Your task to perform on an android device: What's the weather? Image 0: 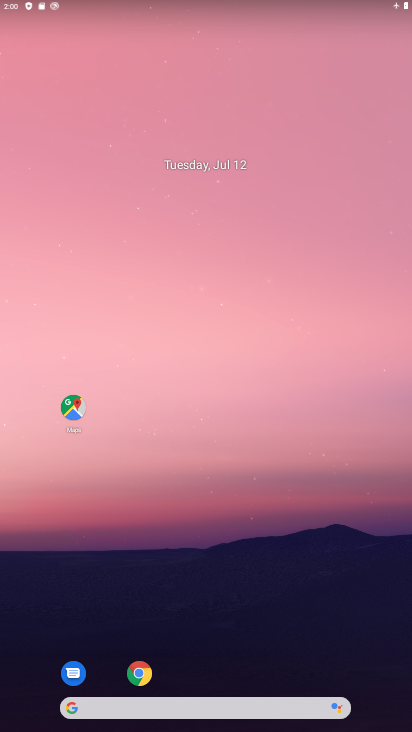
Step 0: drag from (294, 681) to (253, 348)
Your task to perform on an android device: What's the weather? Image 1: 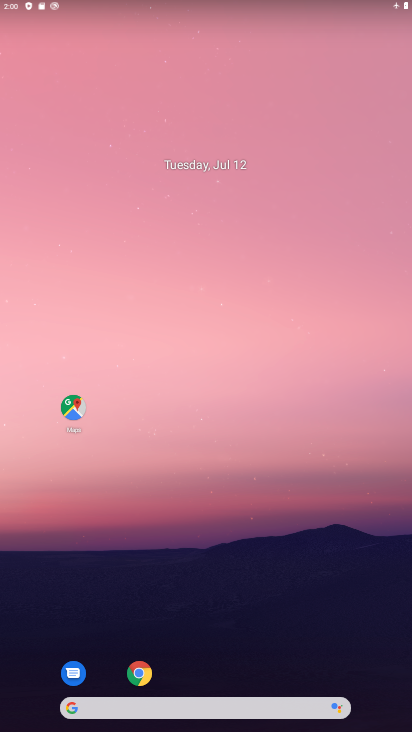
Step 1: drag from (177, 547) to (180, 96)
Your task to perform on an android device: What's the weather? Image 2: 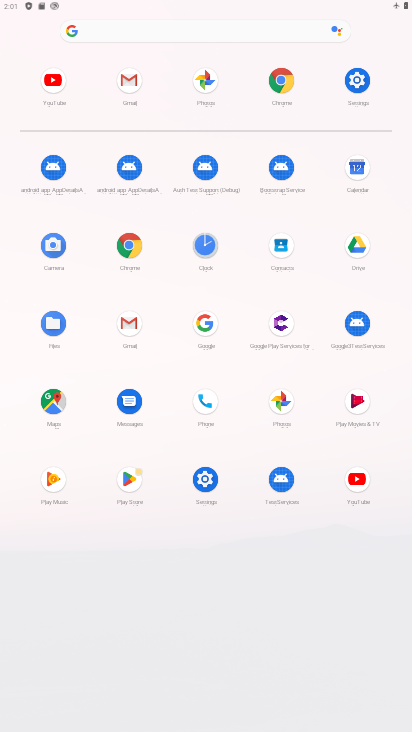
Step 2: click (273, 76)
Your task to perform on an android device: What's the weather? Image 3: 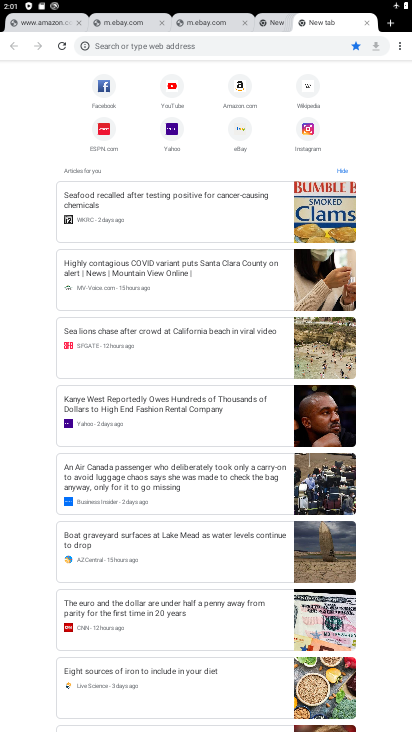
Step 3: click (186, 47)
Your task to perform on an android device: What's the weather? Image 4: 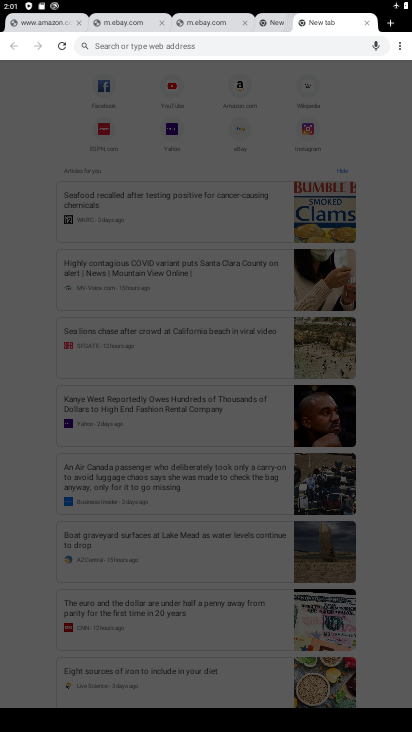
Step 4: type "What's the weather "
Your task to perform on an android device: What's the weather? Image 5: 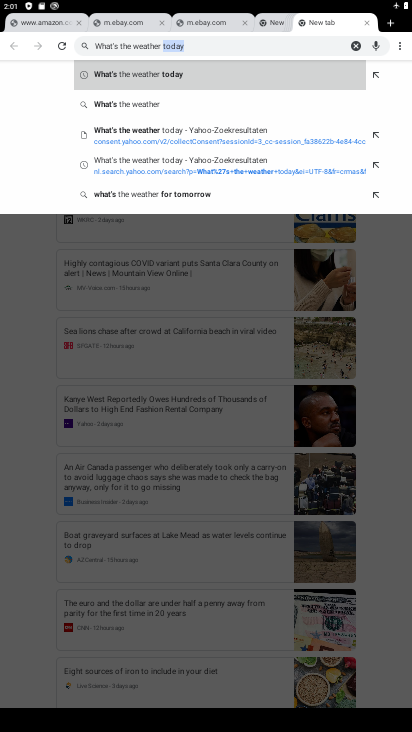
Step 5: click (144, 99)
Your task to perform on an android device: What's the weather? Image 6: 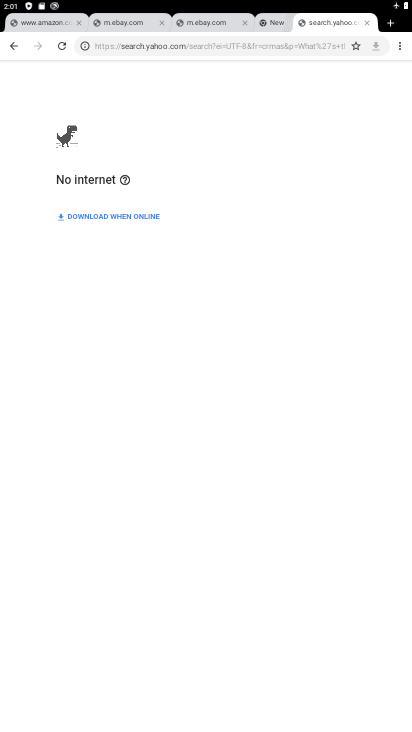
Step 6: task complete